Your task to perform on an android device: Open notification settings Image 0: 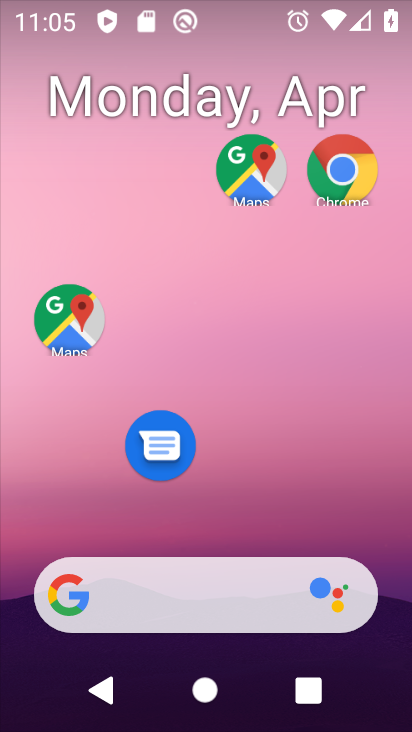
Step 0: drag from (257, 490) to (253, 98)
Your task to perform on an android device: Open notification settings Image 1: 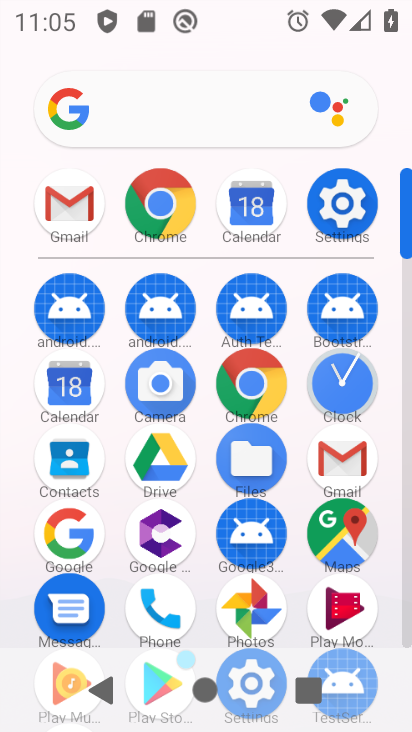
Step 1: click (329, 205)
Your task to perform on an android device: Open notification settings Image 2: 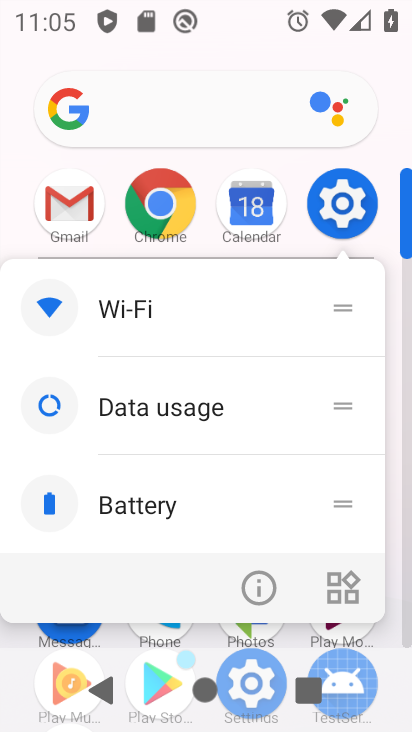
Step 2: click (327, 202)
Your task to perform on an android device: Open notification settings Image 3: 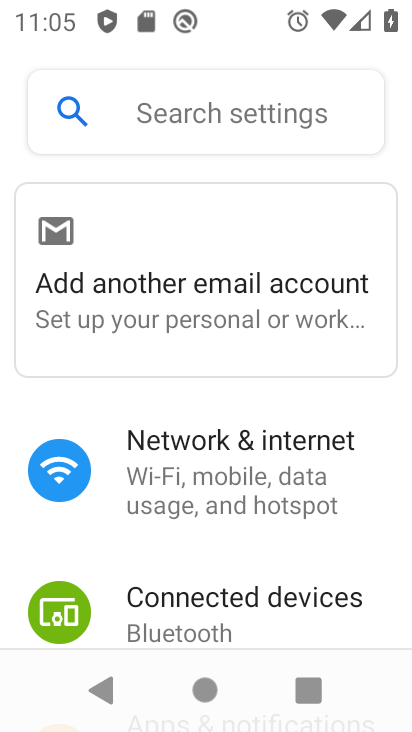
Step 3: drag from (265, 532) to (269, 276)
Your task to perform on an android device: Open notification settings Image 4: 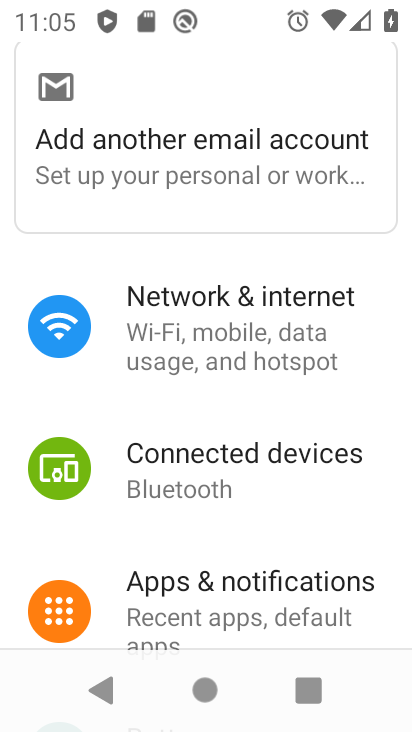
Step 4: click (289, 589)
Your task to perform on an android device: Open notification settings Image 5: 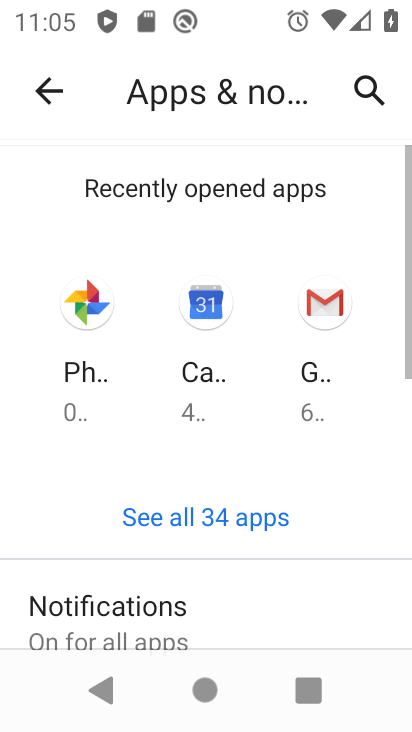
Step 5: drag from (280, 605) to (336, 236)
Your task to perform on an android device: Open notification settings Image 6: 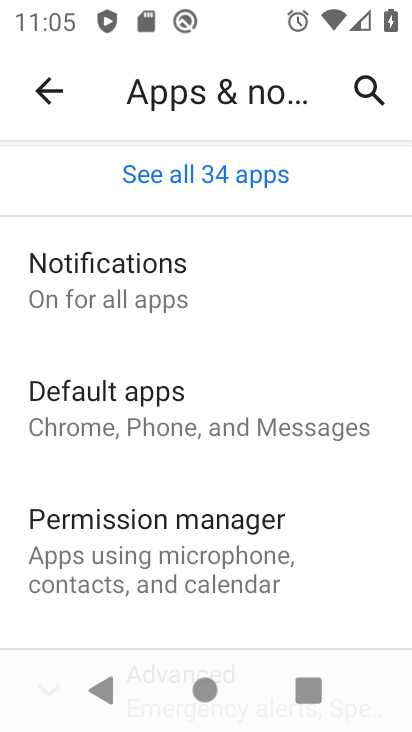
Step 6: click (161, 296)
Your task to perform on an android device: Open notification settings Image 7: 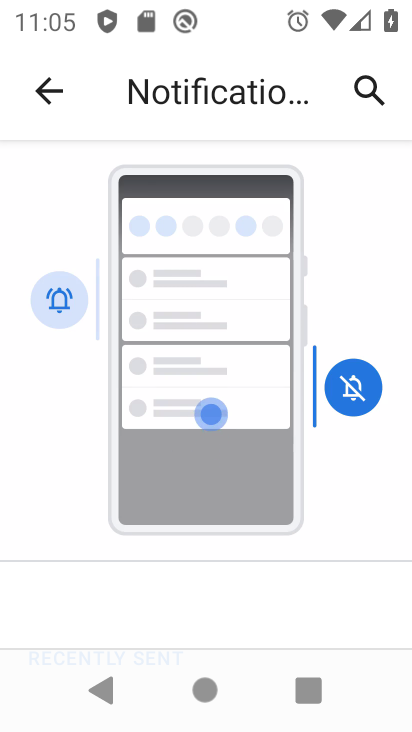
Step 7: task complete